Your task to perform on an android device: Go to Yahoo.com Image 0: 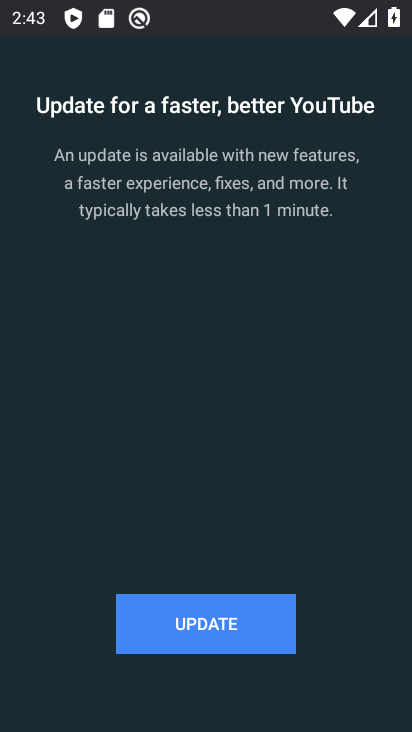
Step 0: press back button
Your task to perform on an android device: Go to Yahoo.com Image 1: 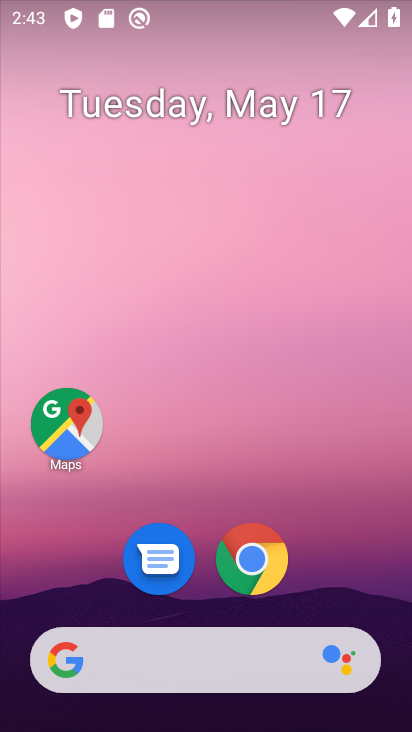
Step 1: drag from (342, 567) to (293, 45)
Your task to perform on an android device: Go to Yahoo.com Image 2: 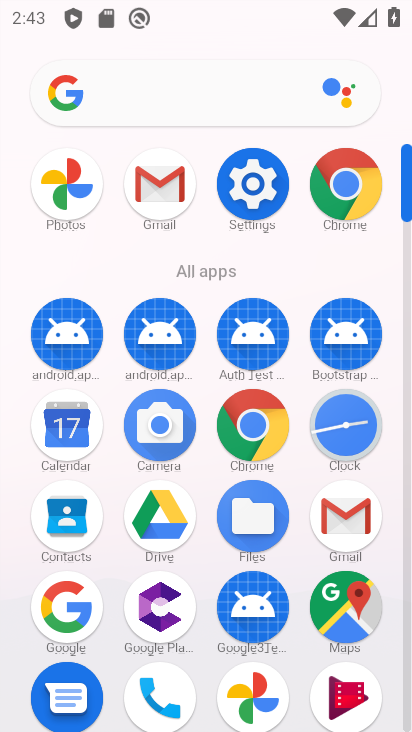
Step 2: click (361, 176)
Your task to perform on an android device: Go to Yahoo.com Image 3: 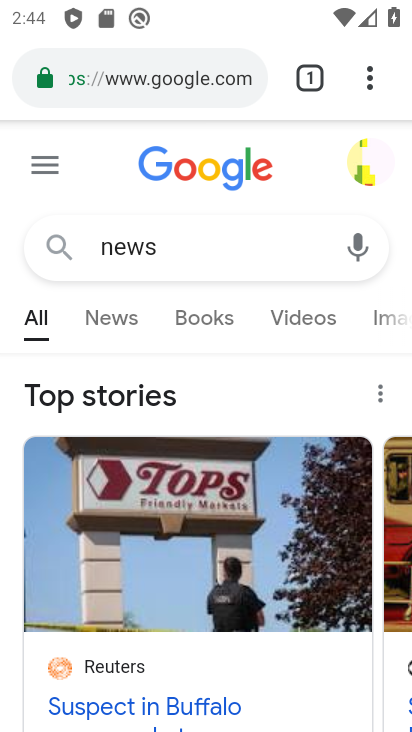
Step 3: click (206, 97)
Your task to perform on an android device: Go to Yahoo.com Image 4: 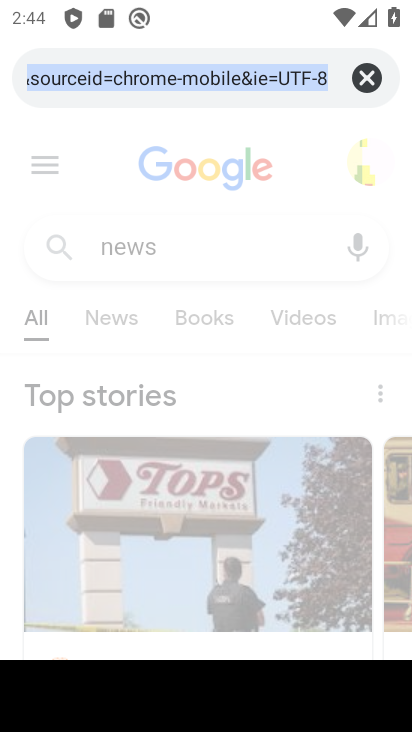
Step 4: click (313, 724)
Your task to perform on an android device: Go to Yahoo.com Image 5: 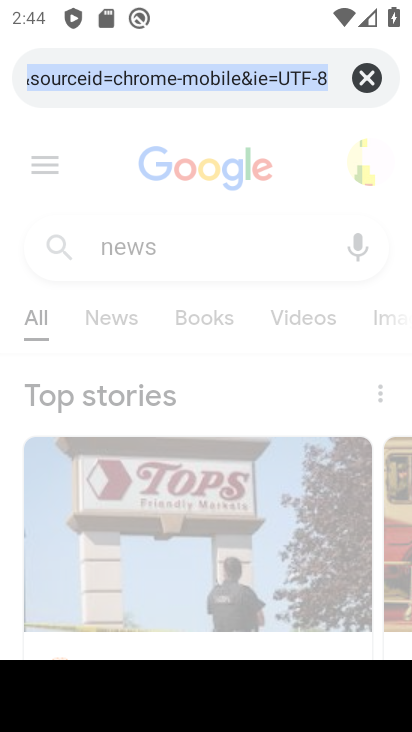
Step 5: type "Yahoo.com"
Your task to perform on an android device: Go to Yahoo.com Image 6: 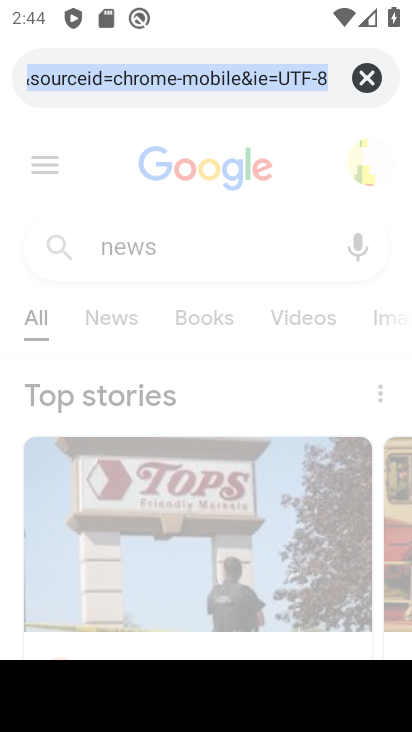
Step 6: drag from (327, 730) to (411, 341)
Your task to perform on an android device: Go to Yahoo.com Image 7: 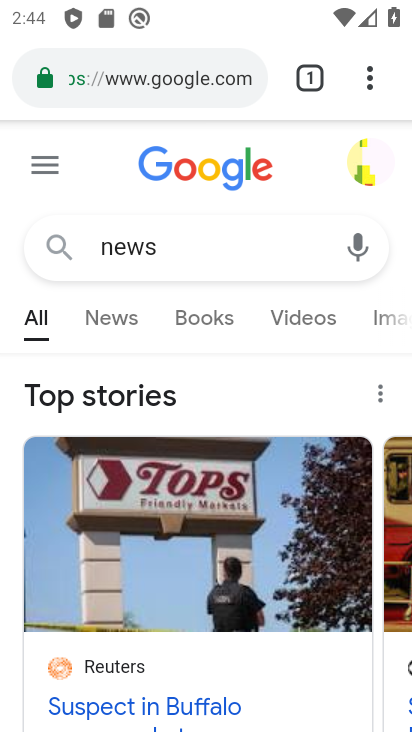
Step 7: click (200, 95)
Your task to perform on an android device: Go to Yahoo.com Image 8: 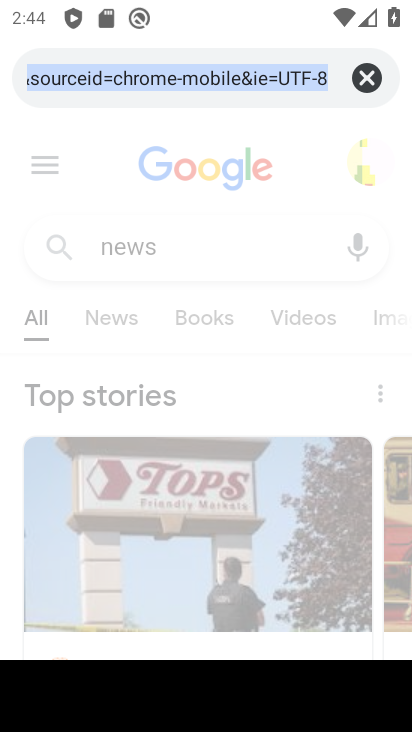
Step 8: type "Yahoo.com"
Your task to perform on an android device: Go to Yahoo.com Image 9: 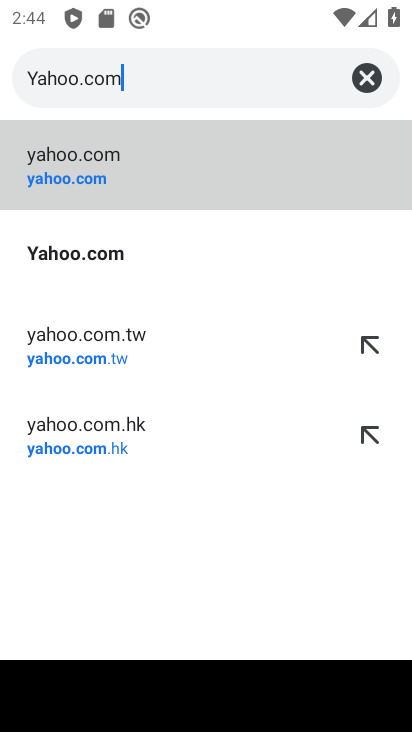
Step 9: click (84, 165)
Your task to perform on an android device: Go to Yahoo.com Image 10: 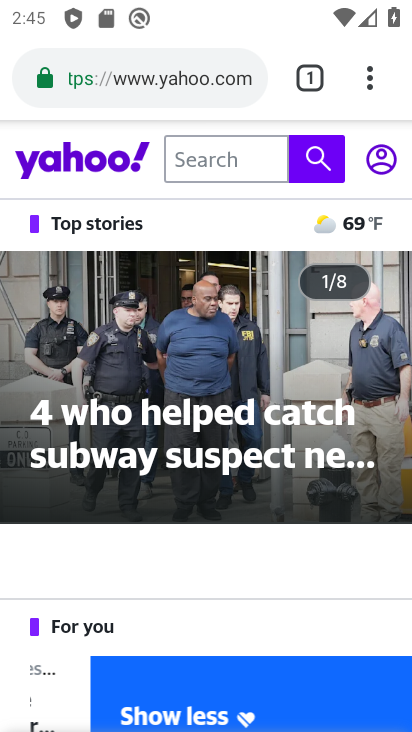
Step 10: task complete